Your task to perform on an android device: star an email in the gmail app Image 0: 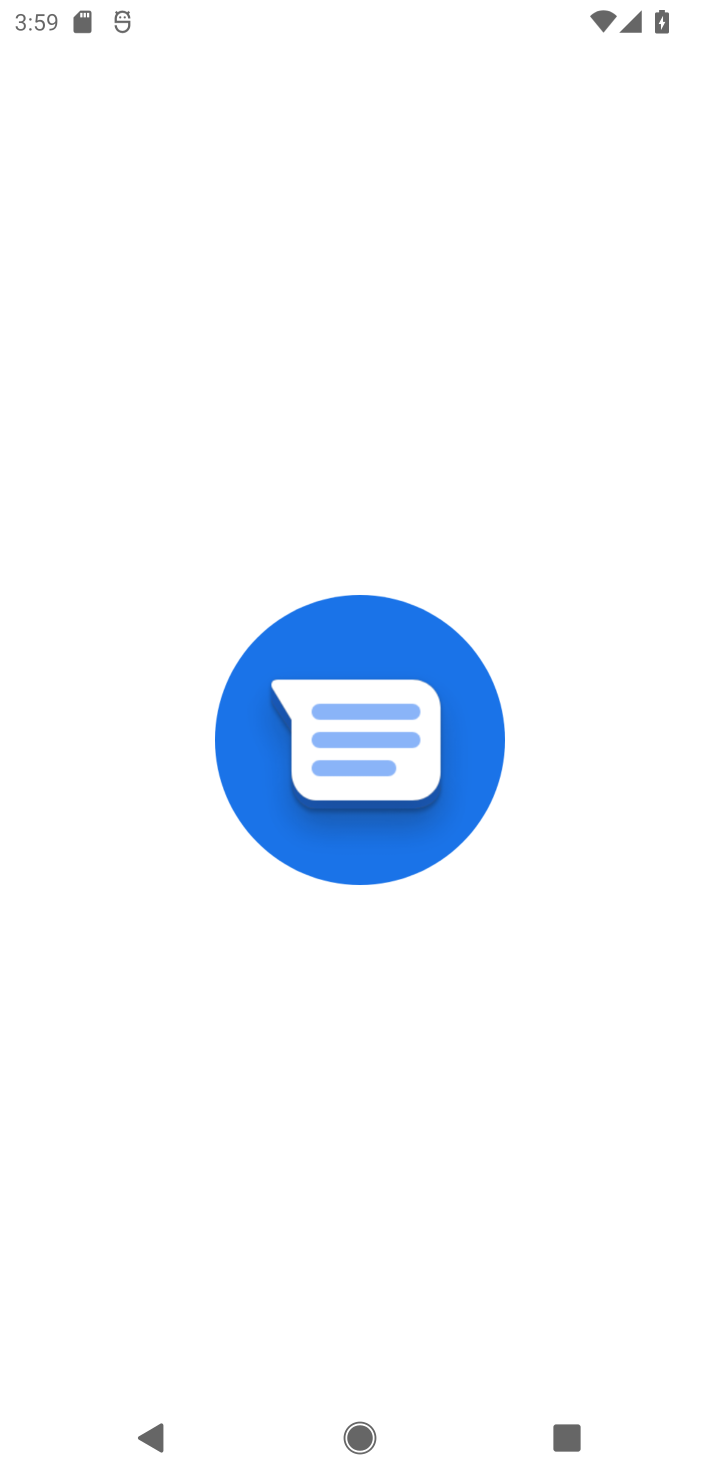
Step 0: press home button
Your task to perform on an android device: star an email in the gmail app Image 1: 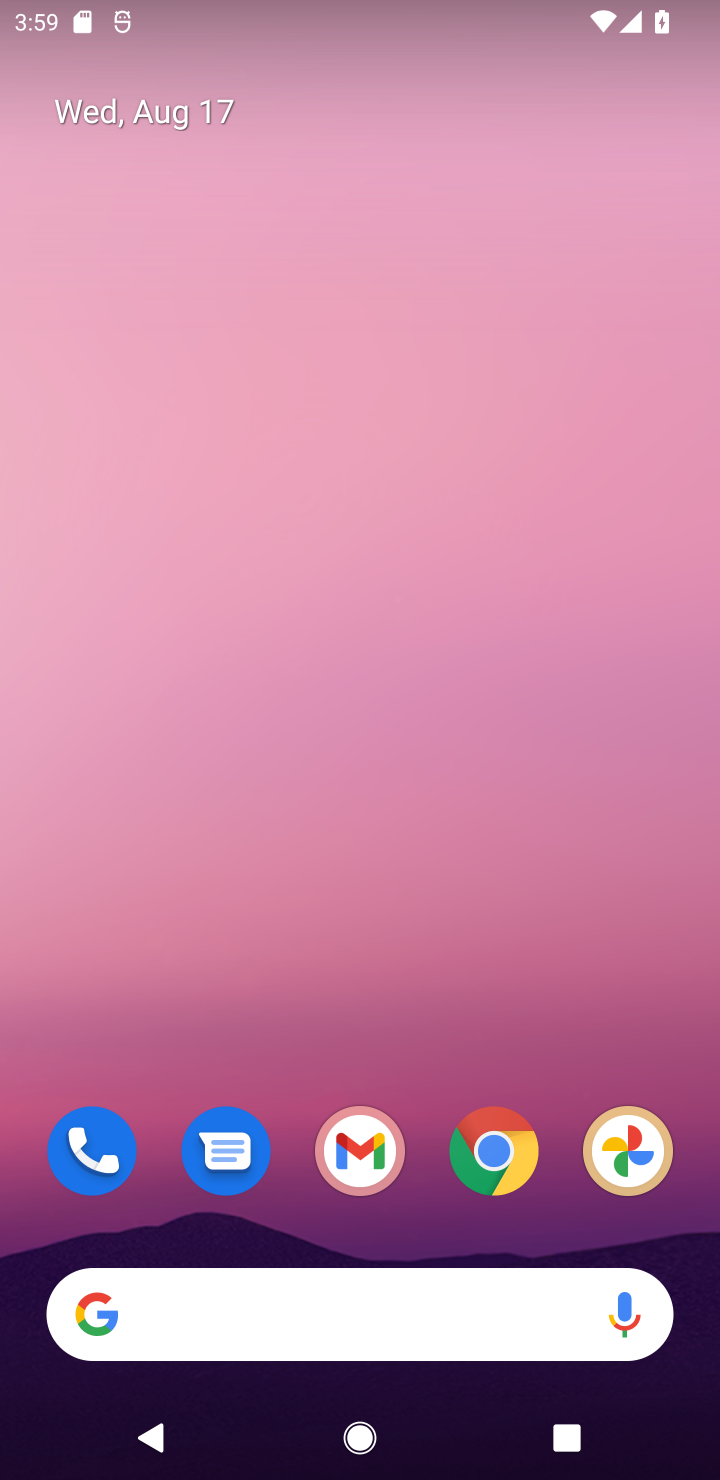
Step 1: click (353, 1165)
Your task to perform on an android device: star an email in the gmail app Image 2: 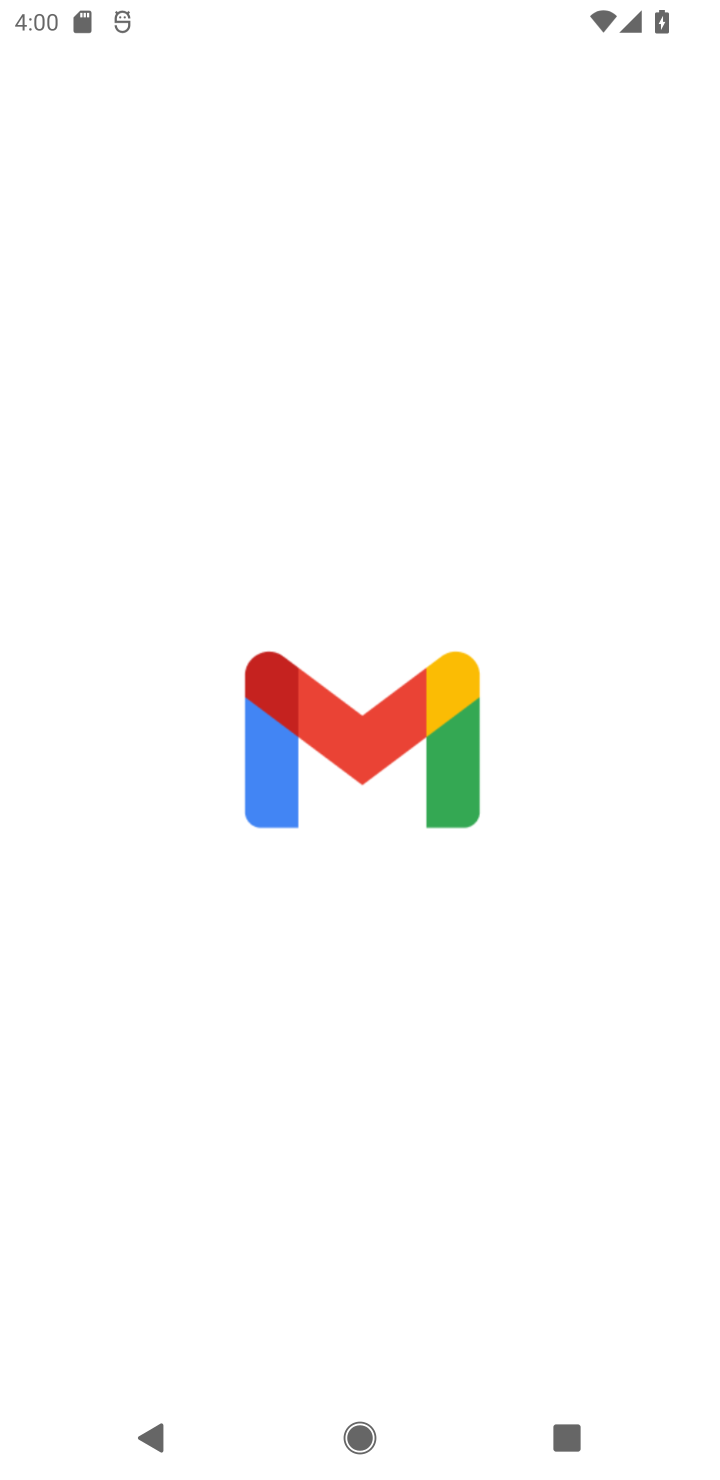
Step 2: task complete